Your task to perform on an android device: Is it going to rain today? Image 0: 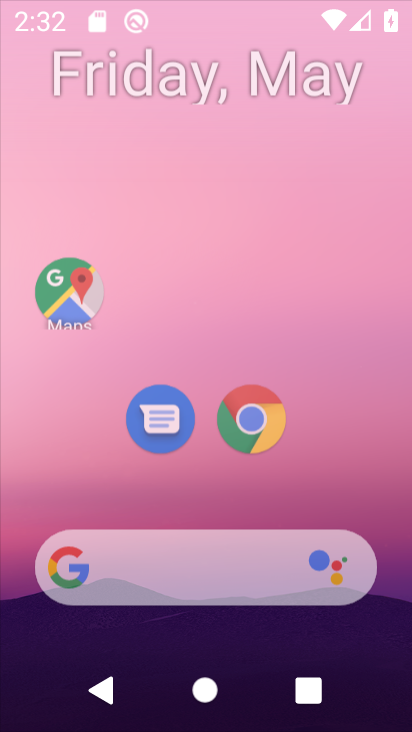
Step 0: click (237, 83)
Your task to perform on an android device: Is it going to rain today? Image 1: 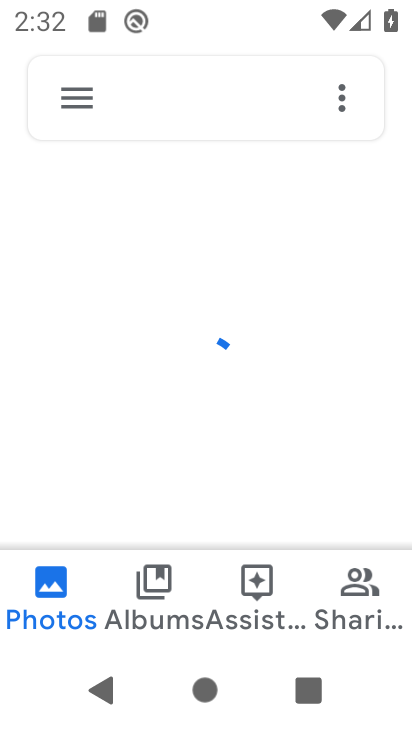
Step 1: press home button
Your task to perform on an android device: Is it going to rain today? Image 2: 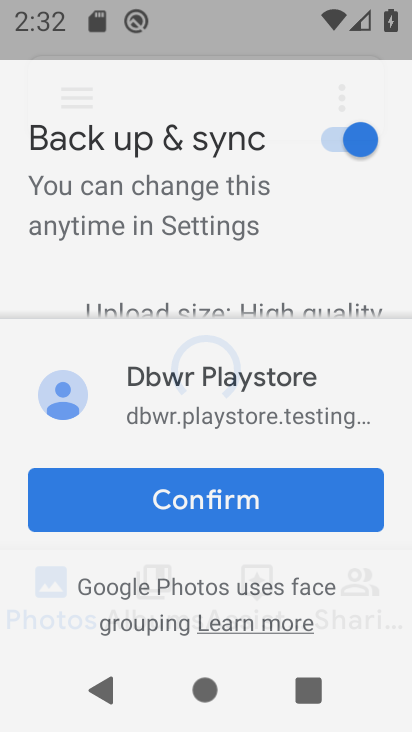
Step 2: press home button
Your task to perform on an android device: Is it going to rain today? Image 3: 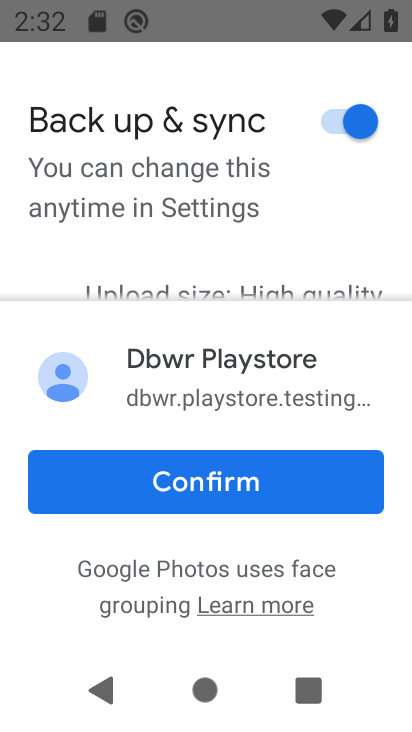
Step 3: click (272, 182)
Your task to perform on an android device: Is it going to rain today? Image 4: 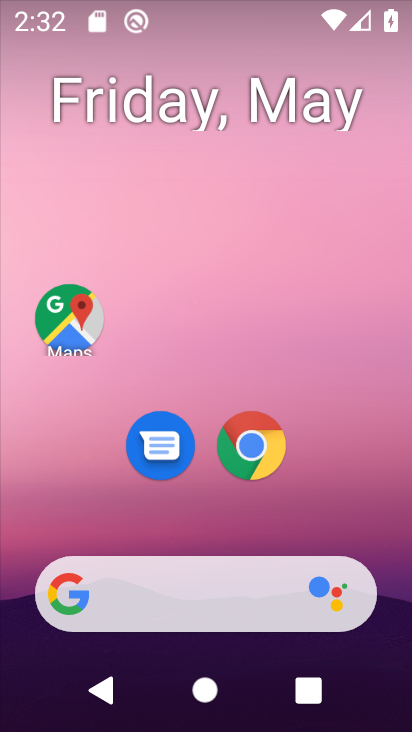
Step 4: drag from (185, 535) to (239, 169)
Your task to perform on an android device: Is it going to rain today? Image 5: 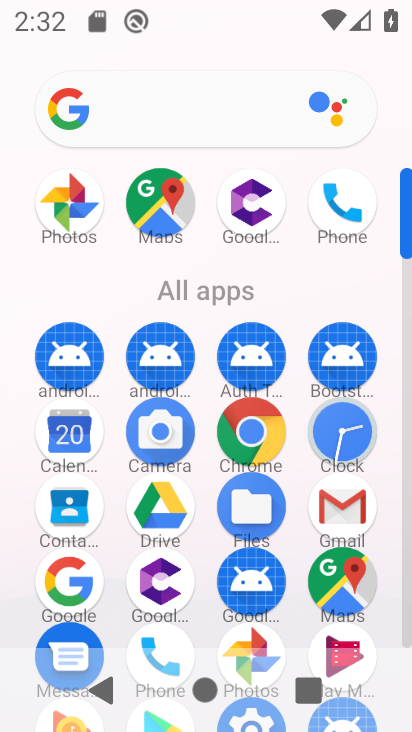
Step 5: click (148, 108)
Your task to perform on an android device: Is it going to rain today? Image 6: 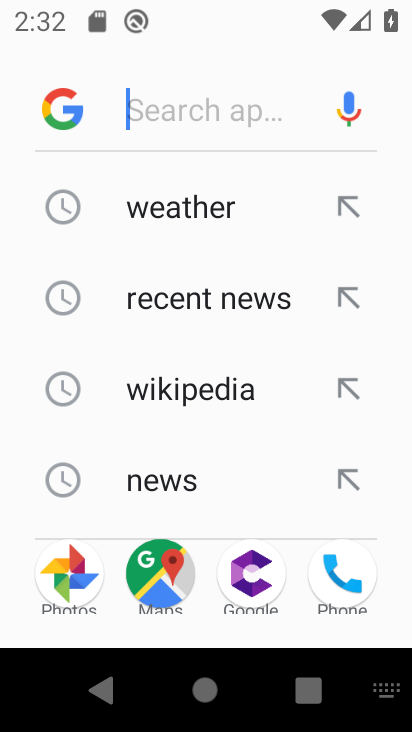
Step 6: type "rain today?"
Your task to perform on an android device: Is it going to rain today? Image 7: 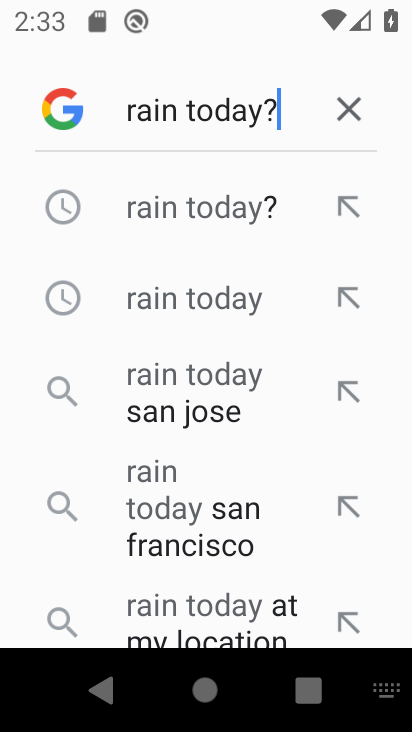
Step 7: type ""
Your task to perform on an android device: Is it going to rain today? Image 8: 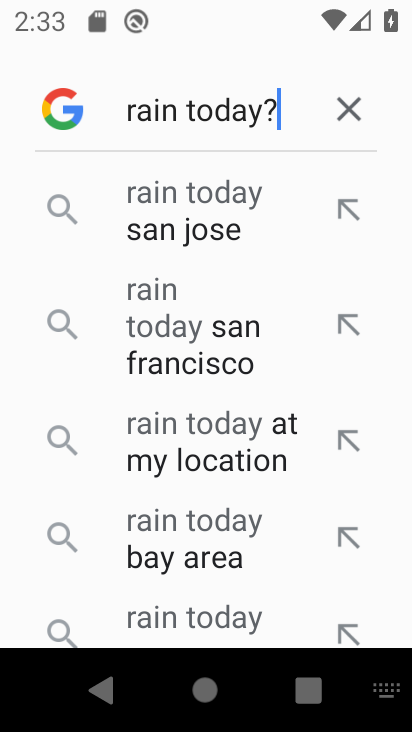
Step 8: click (29, 199)
Your task to perform on an android device: Is it going to rain today? Image 9: 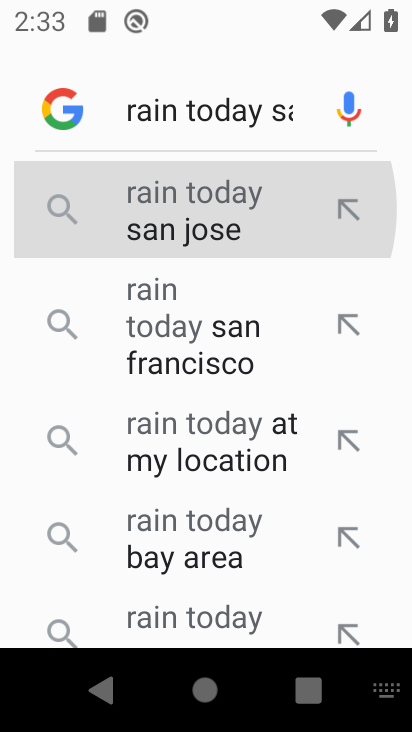
Step 9: click (53, 200)
Your task to perform on an android device: Is it going to rain today? Image 10: 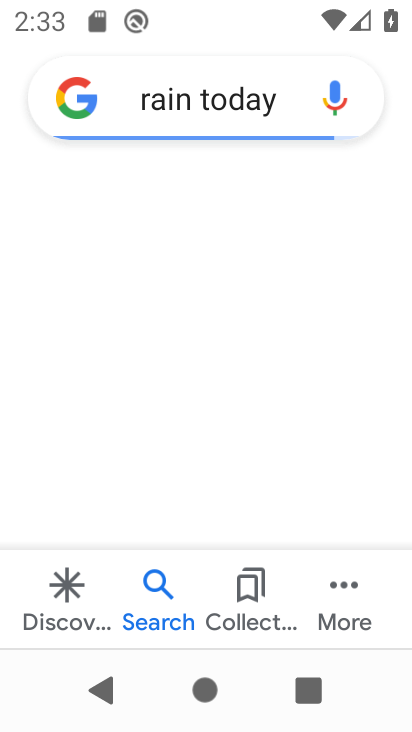
Step 10: task complete